Your task to perform on an android device: Open Chrome and go to settings Image 0: 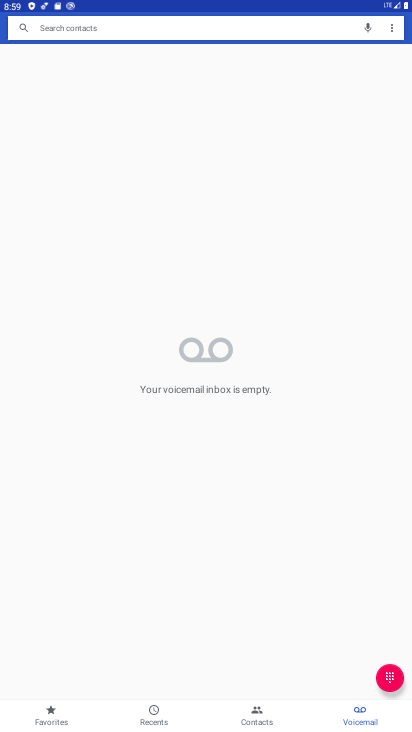
Step 0: press home button
Your task to perform on an android device: Open Chrome and go to settings Image 1: 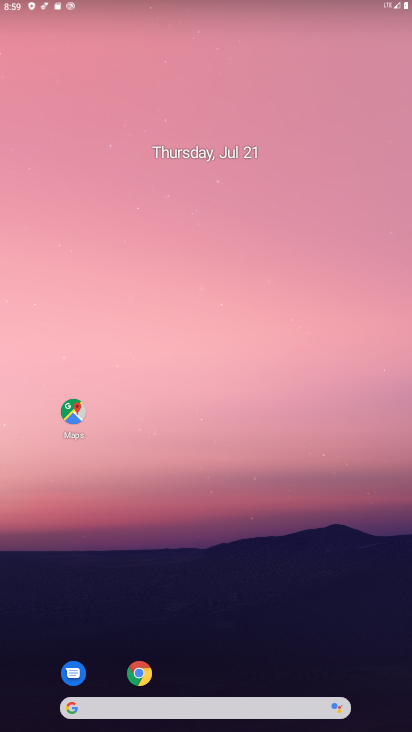
Step 1: click (231, 675)
Your task to perform on an android device: Open Chrome and go to settings Image 2: 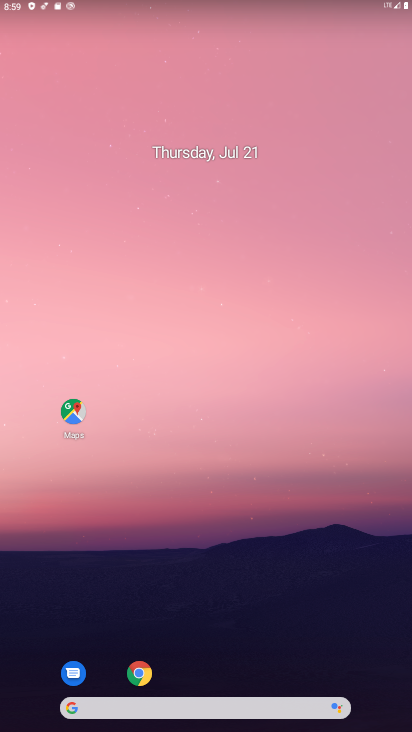
Step 2: click (135, 672)
Your task to perform on an android device: Open Chrome and go to settings Image 3: 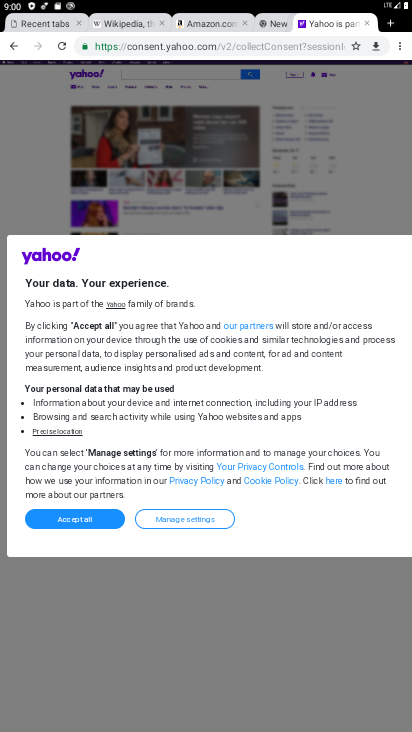
Step 3: click (397, 45)
Your task to perform on an android device: Open Chrome and go to settings Image 4: 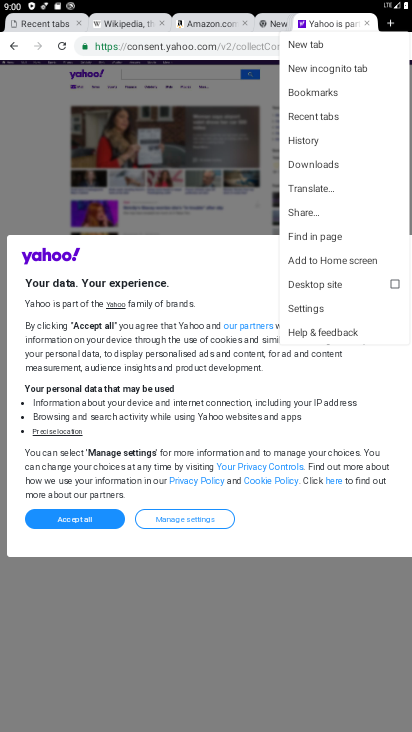
Step 4: click (316, 314)
Your task to perform on an android device: Open Chrome and go to settings Image 5: 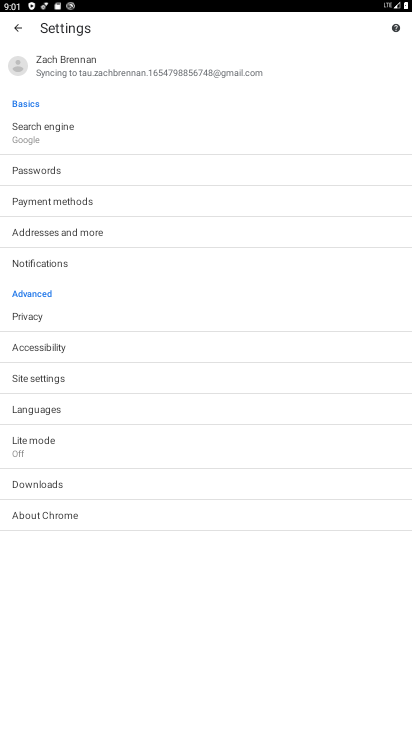
Step 5: task complete